Your task to perform on an android device: turn off sleep mode Image 0: 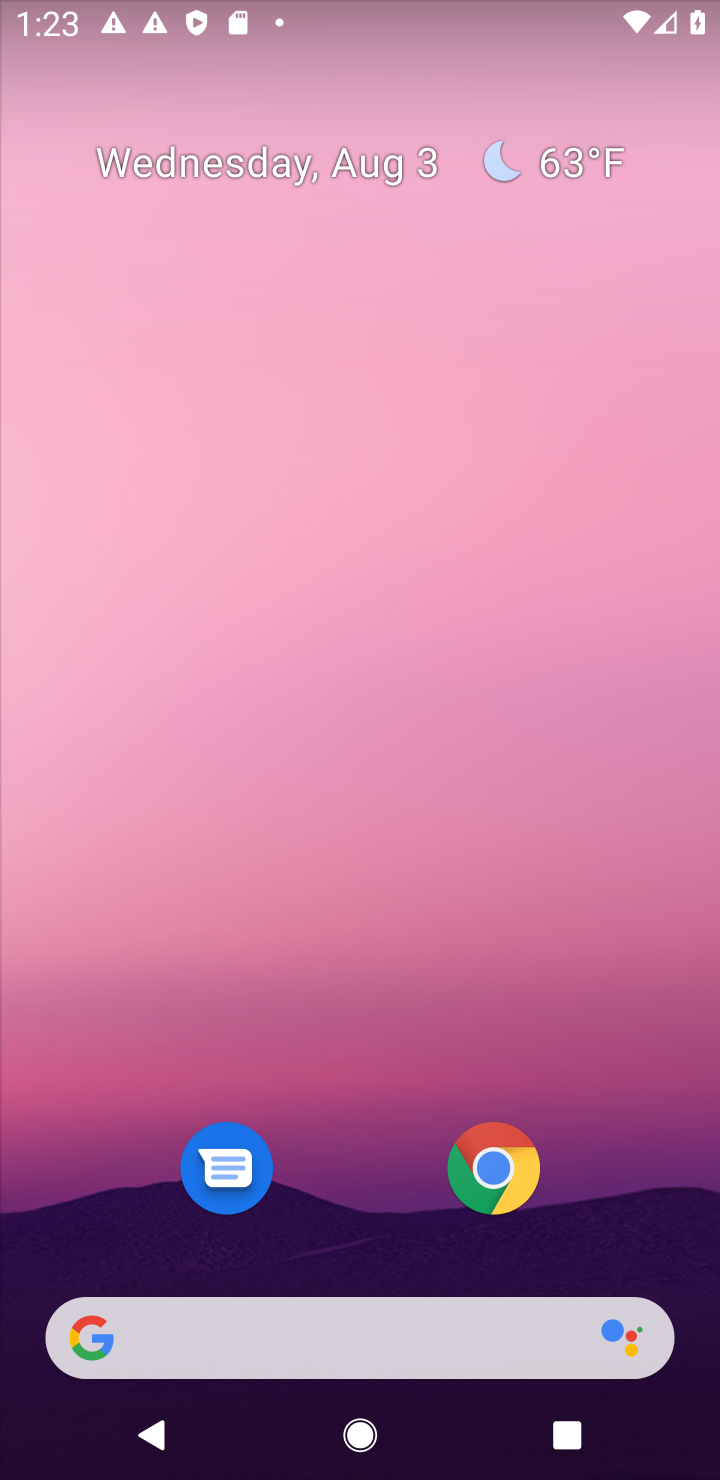
Step 0: press home button
Your task to perform on an android device: turn off sleep mode Image 1: 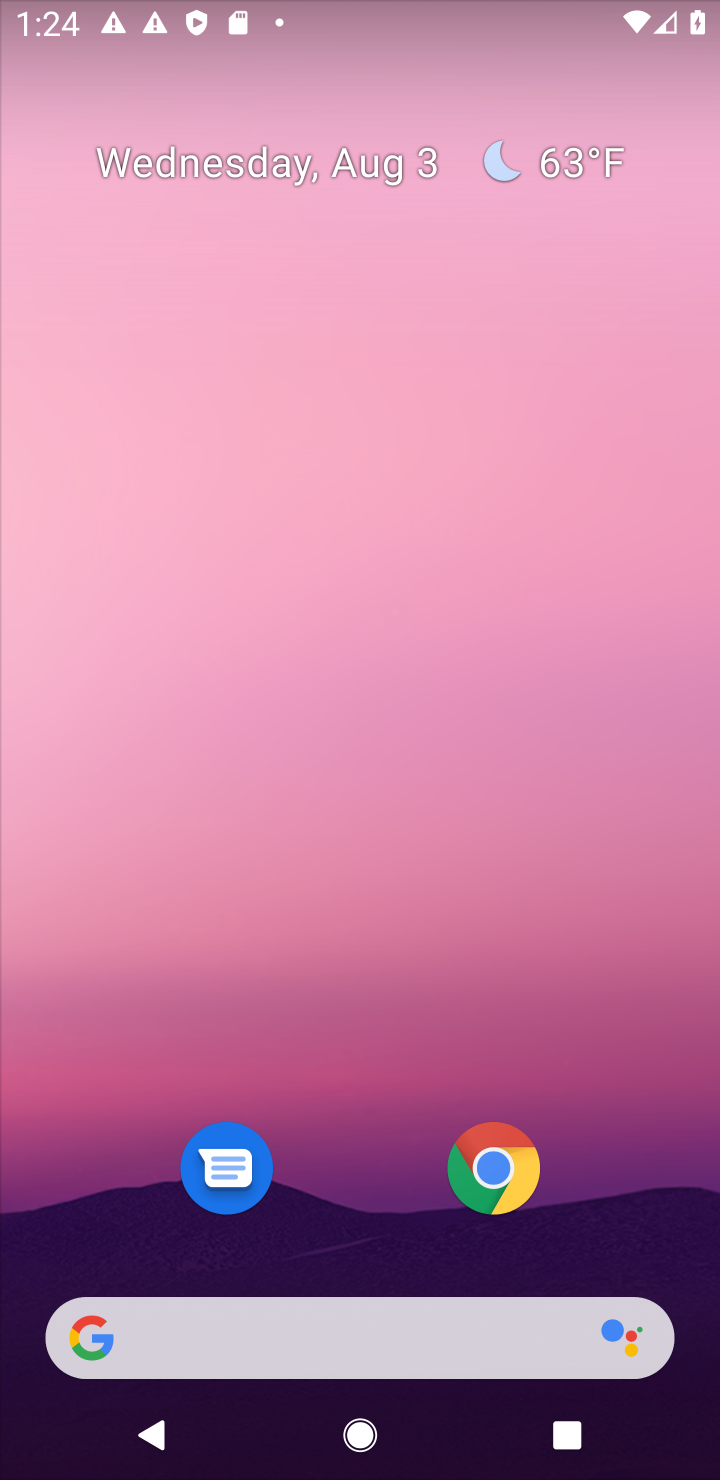
Step 1: drag from (661, 1219) to (628, 241)
Your task to perform on an android device: turn off sleep mode Image 2: 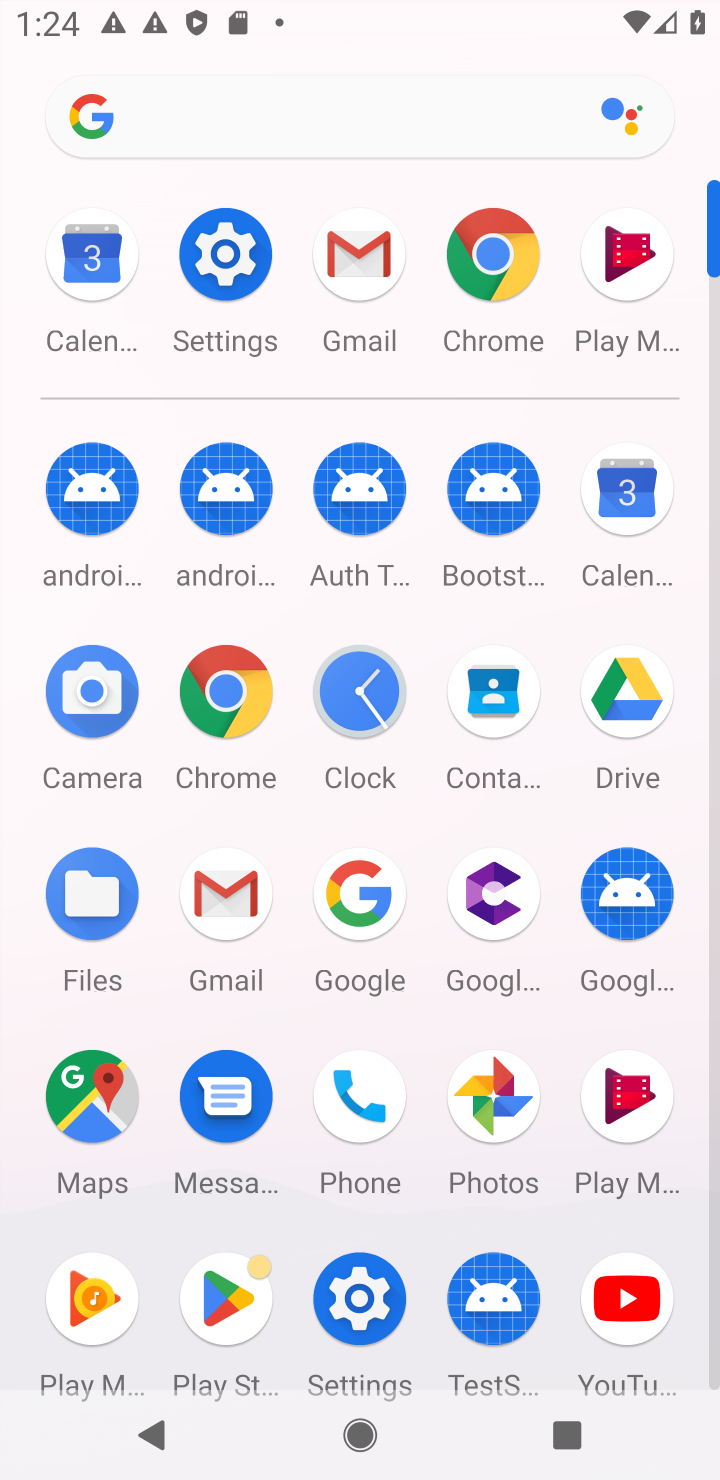
Step 2: click (355, 1295)
Your task to perform on an android device: turn off sleep mode Image 3: 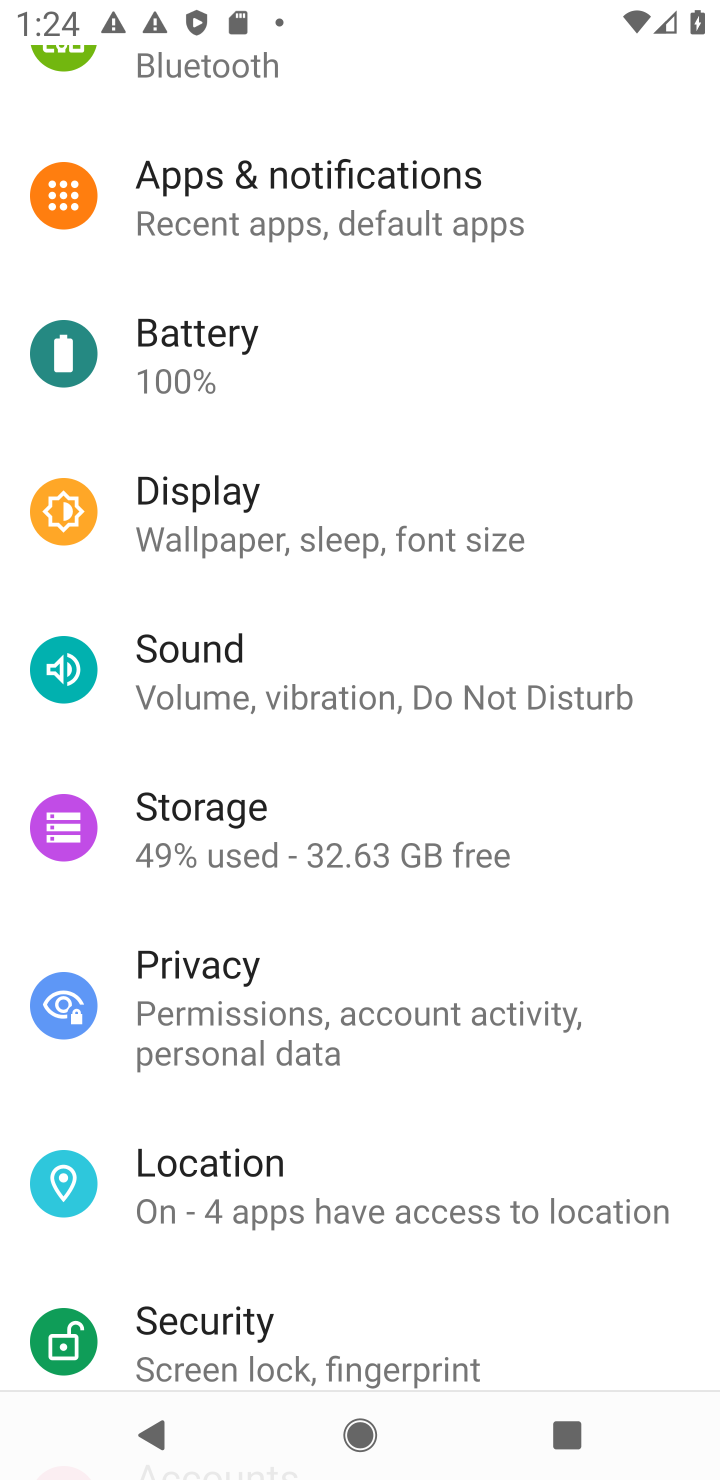
Step 3: click (229, 522)
Your task to perform on an android device: turn off sleep mode Image 4: 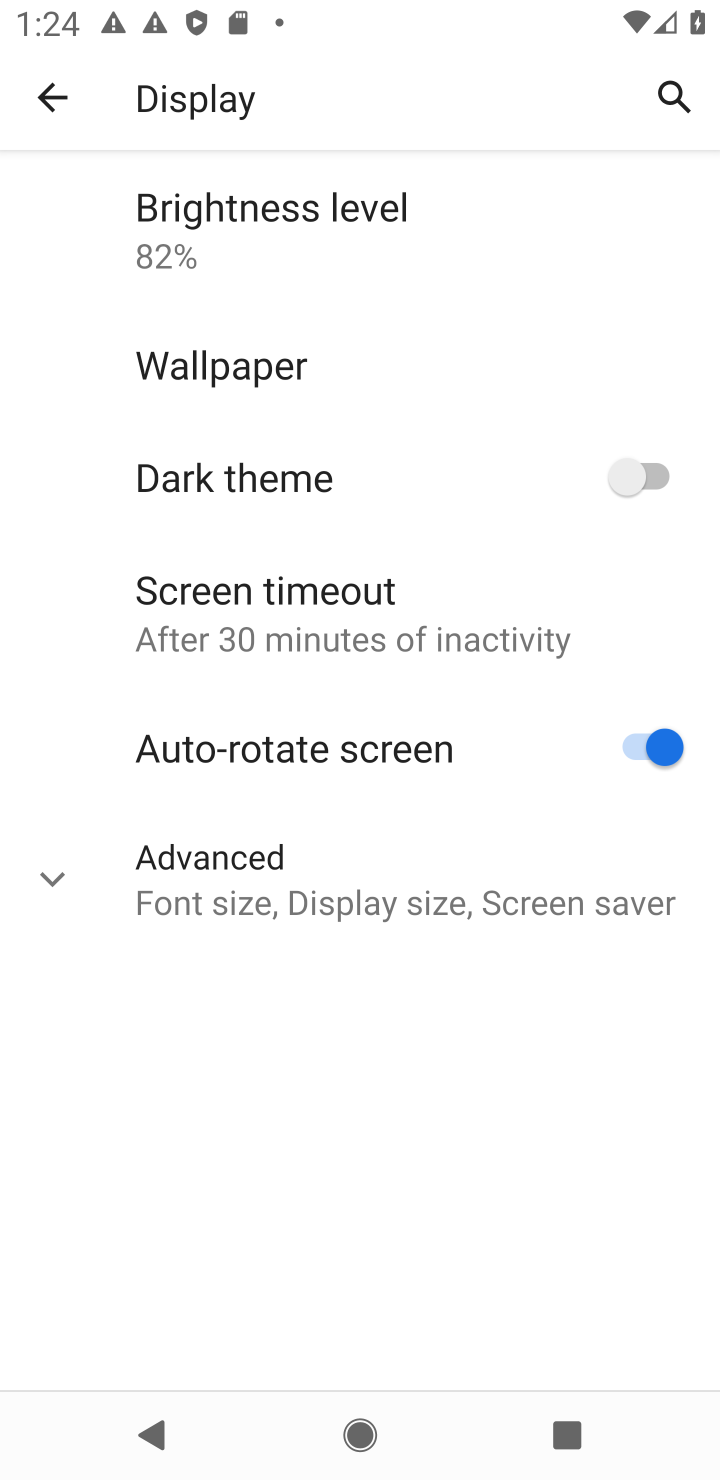
Step 4: click (57, 861)
Your task to perform on an android device: turn off sleep mode Image 5: 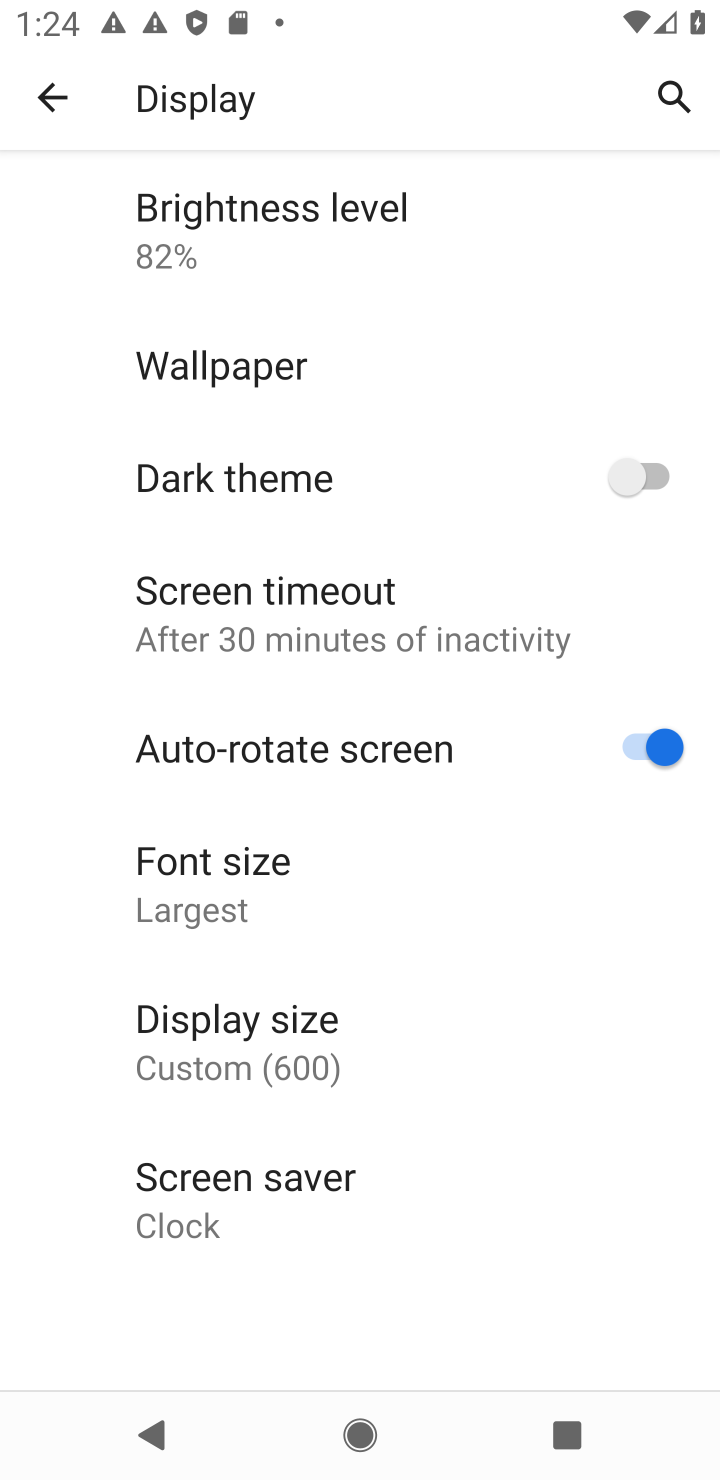
Step 5: task complete